Your task to perform on an android device: allow cookies in the chrome app Image 0: 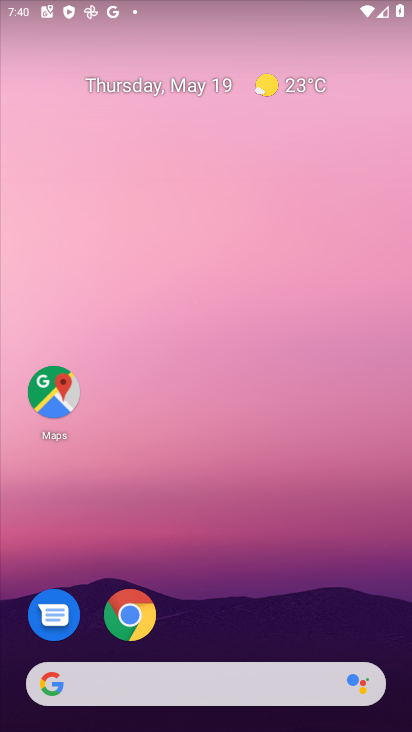
Step 0: drag from (390, 626) to (274, 96)
Your task to perform on an android device: allow cookies in the chrome app Image 1: 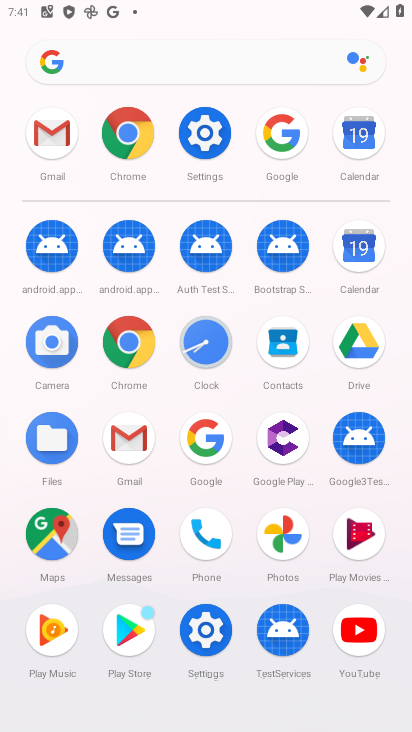
Step 1: click (155, 149)
Your task to perform on an android device: allow cookies in the chrome app Image 2: 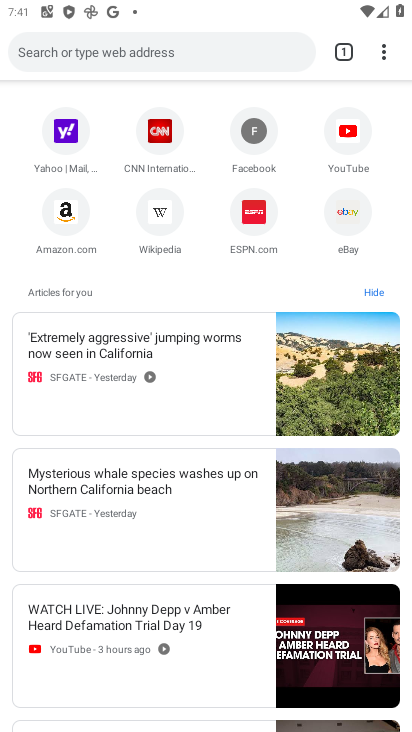
Step 2: click (377, 51)
Your task to perform on an android device: allow cookies in the chrome app Image 3: 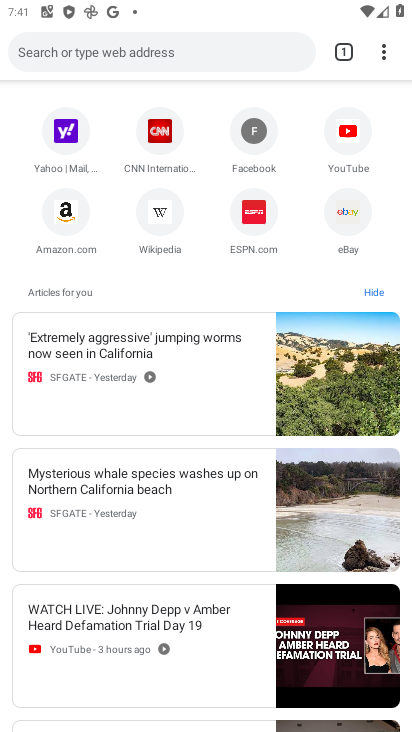
Step 3: click (383, 48)
Your task to perform on an android device: allow cookies in the chrome app Image 4: 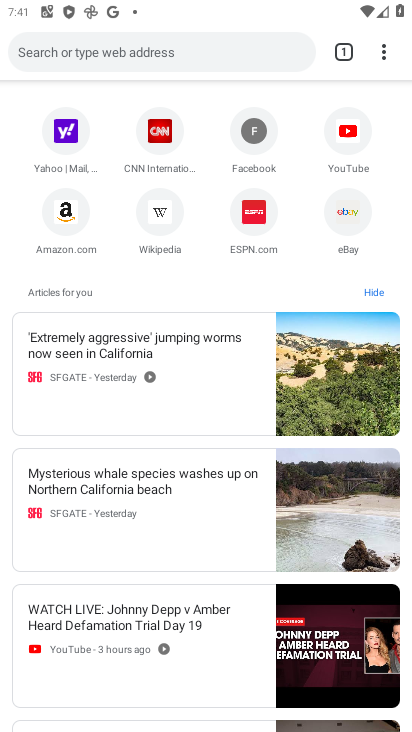
Step 4: click (383, 48)
Your task to perform on an android device: allow cookies in the chrome app Image 5: 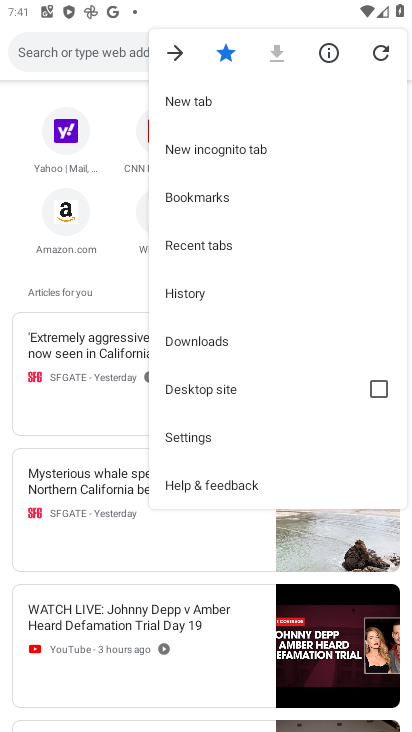
Step 5: click (214, 280)
Your task to perform on an android device: allow cookies in the chrome app Image 6: 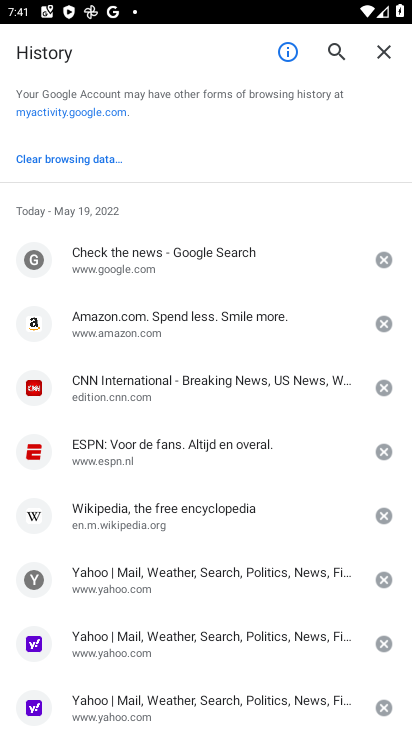
Step 6: click (80, 161)
Your task to perform on an android device: allow cookies in the chrome app Image 7: 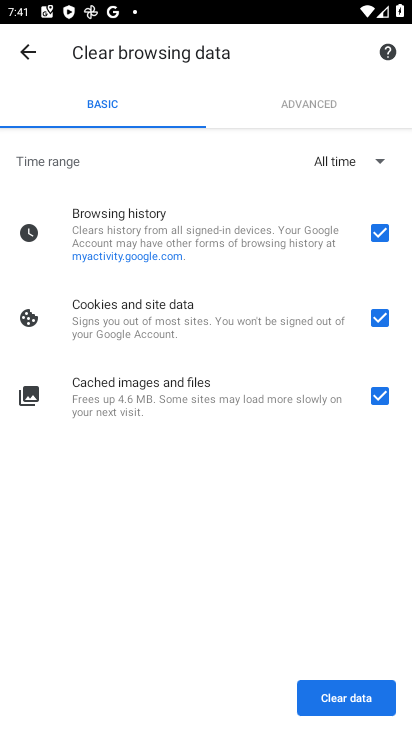
Step 7: task complete